Your task to perform on an android device: turn off airplane mode Image 0: 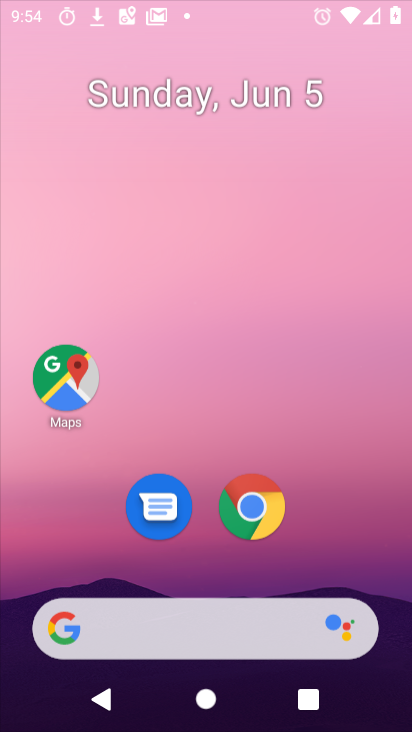
Step 0: drag from (278, 674) to (186, 157)
Your task to perform on an android device: turn off airplane mode Image 1: 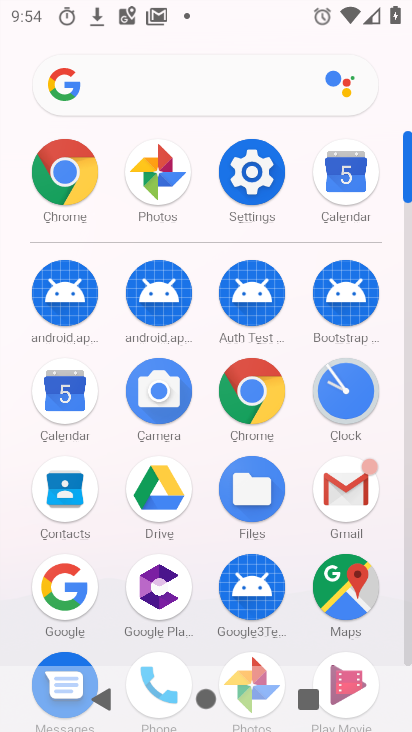
Step 1: click (243, 179)
Your task to perform on an android device: turn off airplane mode Image 2: 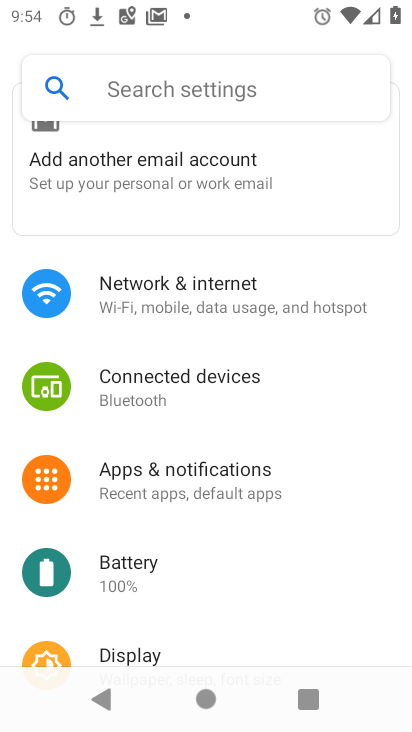
Step 2: click (160, 315)
Your task to perform on an android device: turn off airplane mode Image 3: 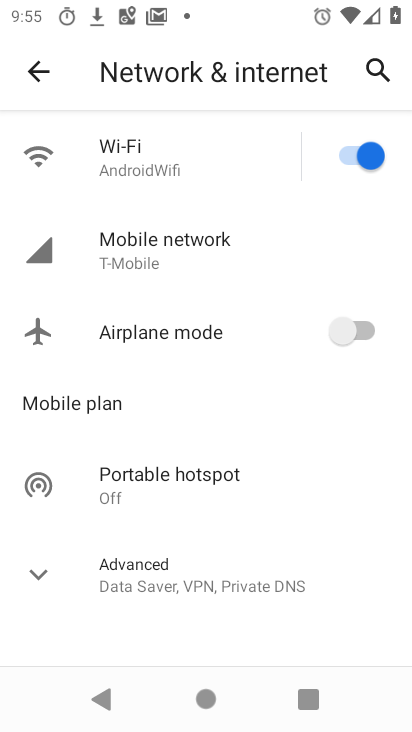
Step 3: click (354, 318)
Your task to perform on an android device: turn off airplane mode Image 4: 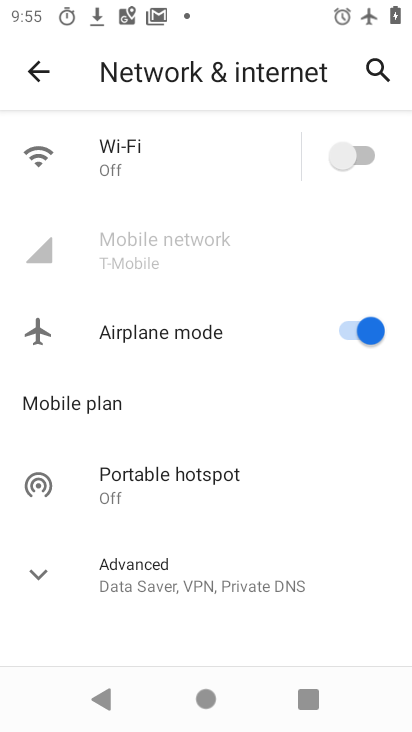
Step 4: click (333, 320)
Your task to perform on an android device: turn off airplane mode Image 5: 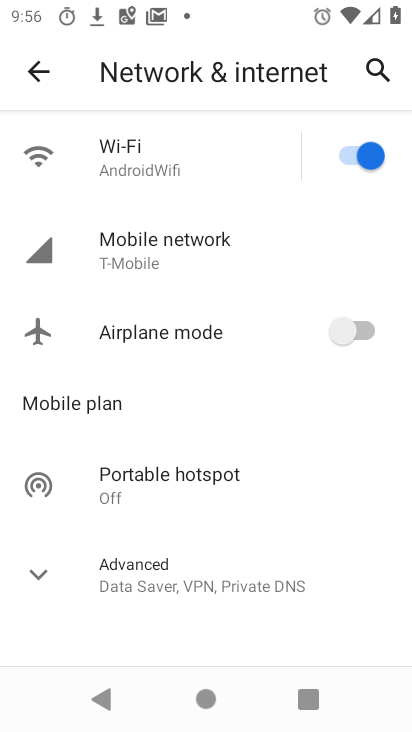
Step 5: task complete